Your task to perform on an android device: Open Google Chrome and open the bookmarks view Image 0: 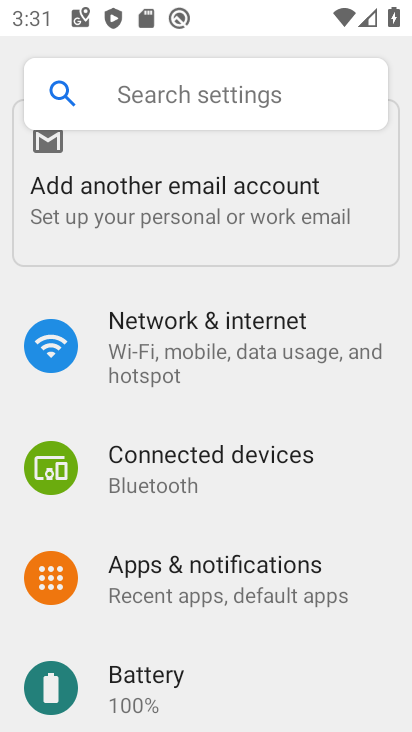
Step 0: press home button
Your task to perform on an android device: Open Google Chrome and open the bookmarks view Image 1: 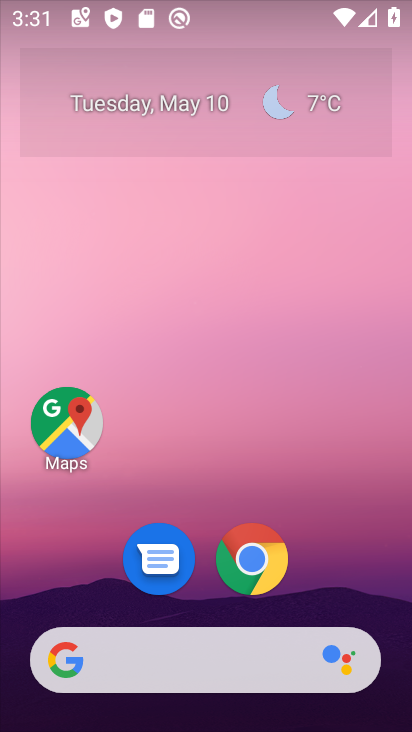
Step 1: click (239, 555)
Your task to perform on an android device: Open Google Chrome and open the bookmarks view Image 2: 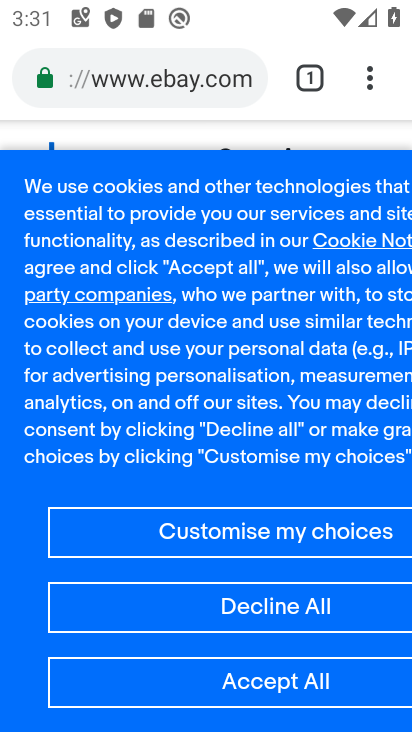
Step 2: task complete